Your task to perform on an android device: turn on location history Image 0: 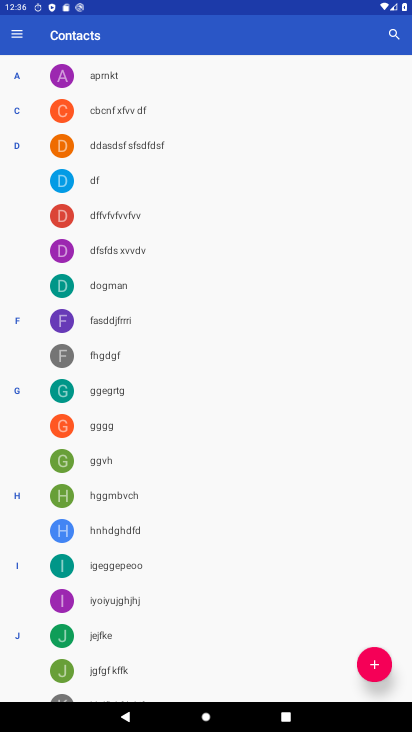
Step 0: press home button
Your task to perform on an android device: turn on location history Image 1: 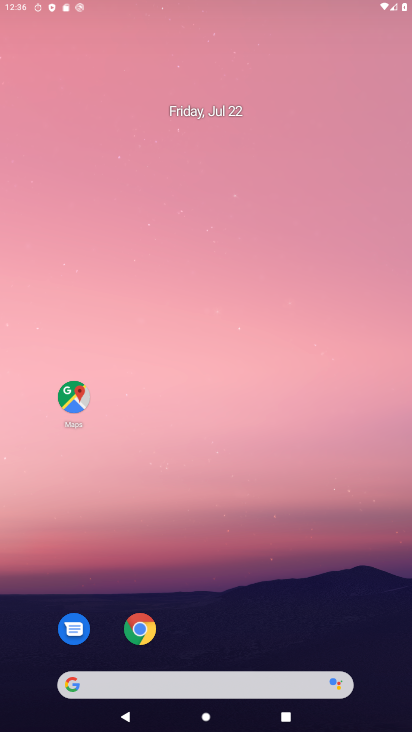
Step 1: drag from (191, 656) to (259, 166)
Your task to perform on an android device: turn on location history Image 2: 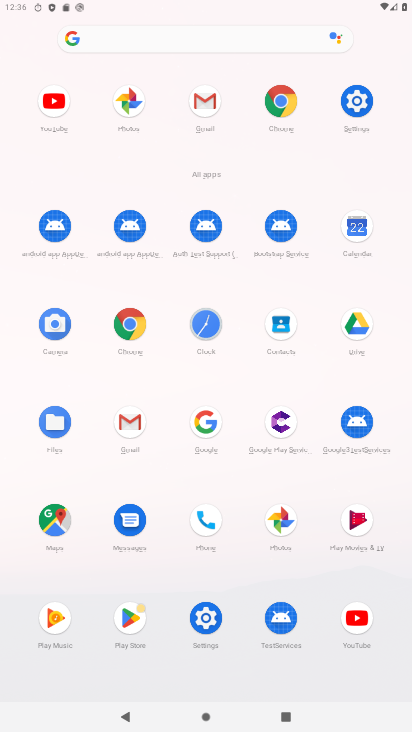
Step 2: click (353, 98)
Your task to perform on an android device: turn on location history Image 3: 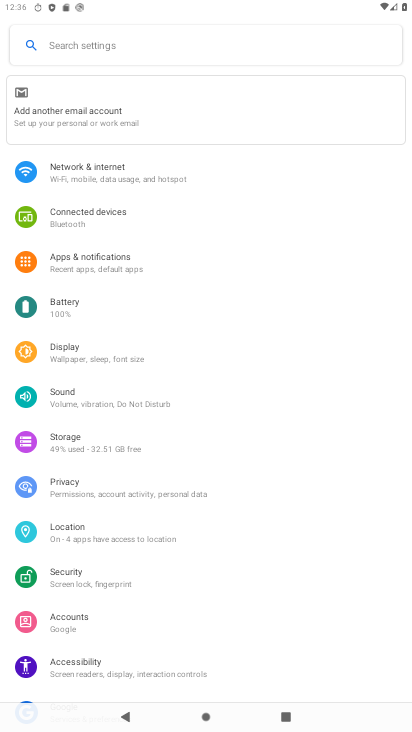
Step 3: click (75, 522)
Your task to perform on an android device: turn on location history Image 4: 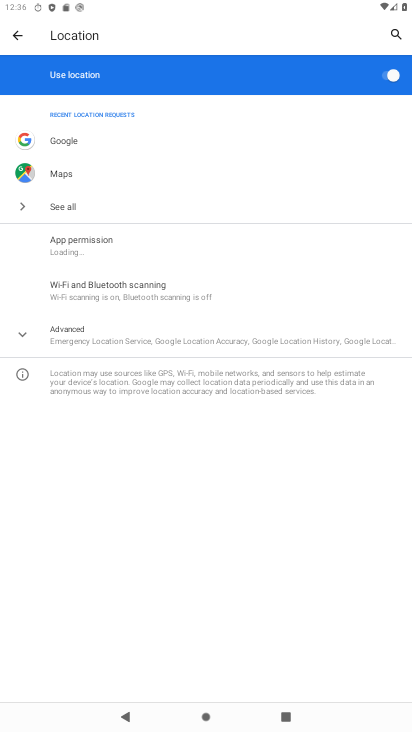
Step 4: click (72, 337)
Your task to perform on an android device: turn on location history Image 5: 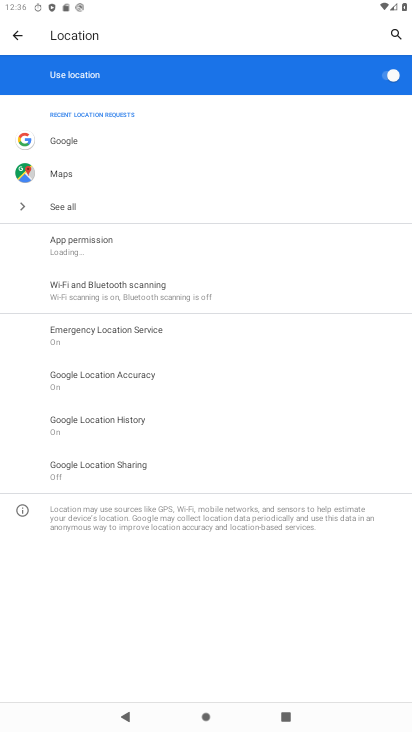
Step 5: click (118, 423)
Your task to perform on an android device: turn on location history Image 6: 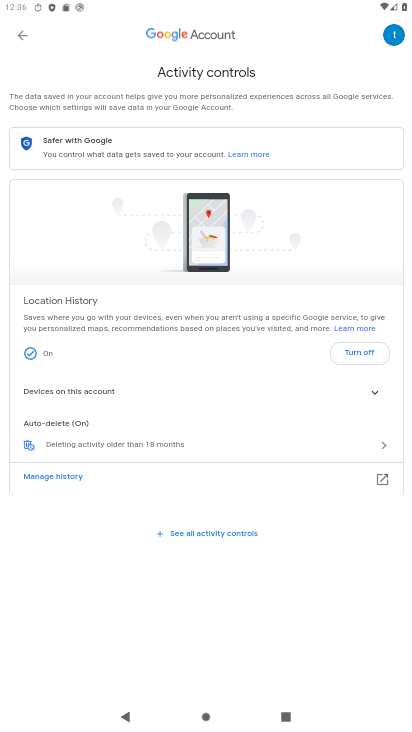
Step 6: task complete